Your task to perform on an android device: See recent photos Image 0: 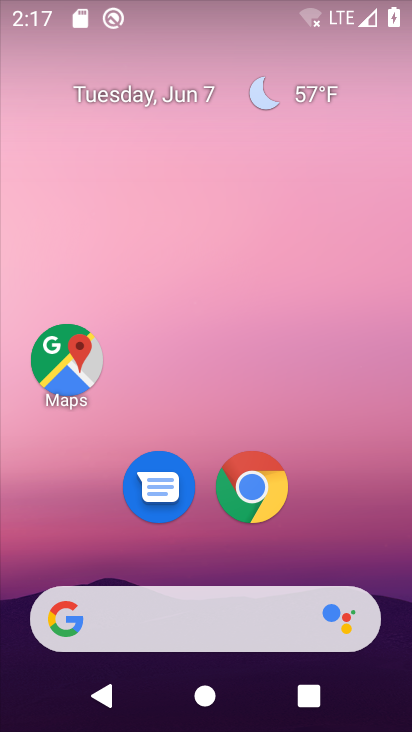
Step 0: drag from (228, 558) to (147, 58)
Your task to perform on an android device: See recent photos Image 1: 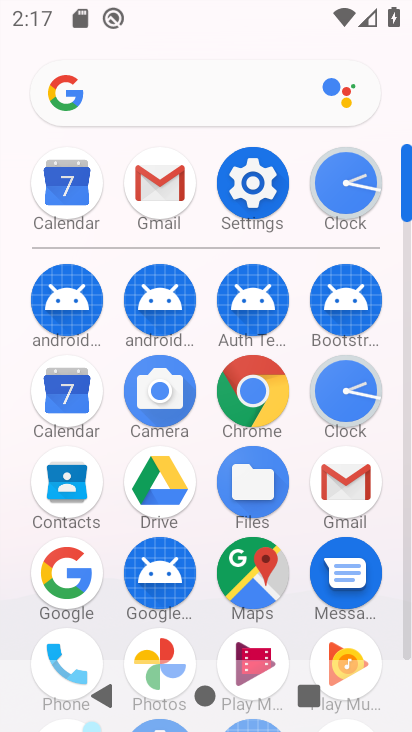
Step 1: click (169, 636)
Your task to perform on an android device: See recent photos Image 2: 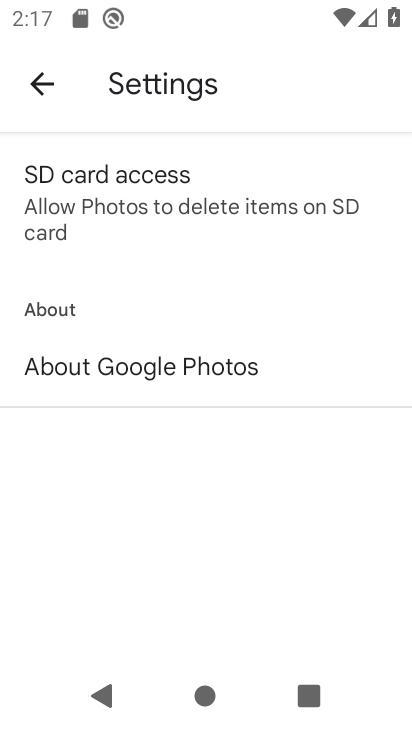
Step 2: click (45, 84)
Your task to perform on an android device: See recent photos Image 3: 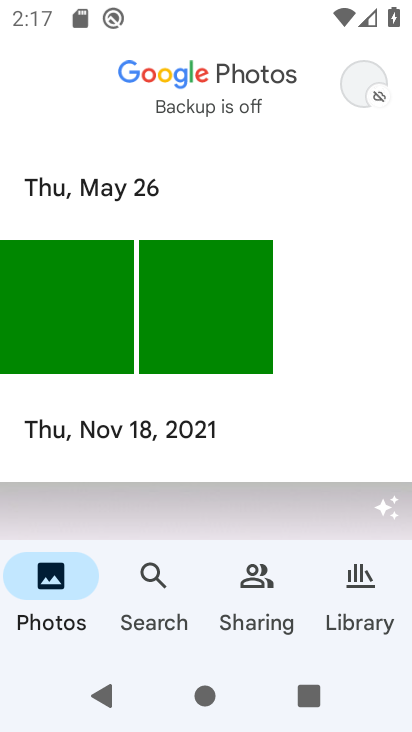
Step 3: task complete